Your task to perform on an android device: install app "Airtel Thanks" Image 0: 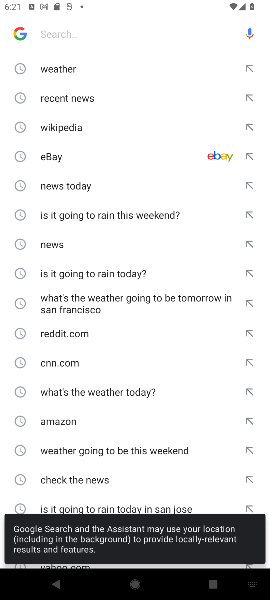
Step 0: press home button
Your task to perform on an android device: install app "Airtel Thanks" Image 1: 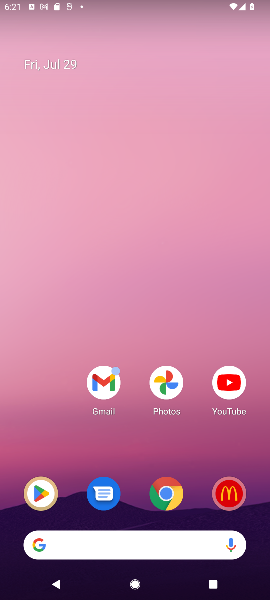
Step 1: click (38, 491)
Your task to perform on an android device: install app "Airtel Thanks" Image 2: 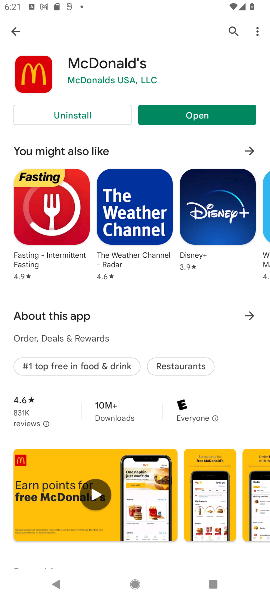
Step 2: click (230, 24)
Your task to perform on an android device: install app "Airtel Thanks" Image 3: 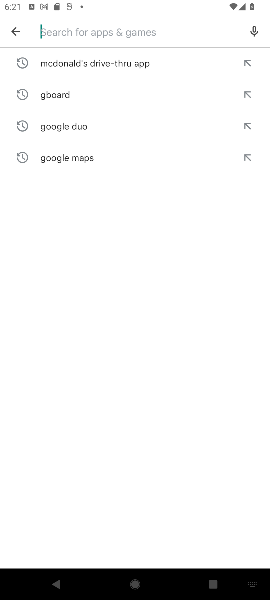
Step 3: type "Airtel Thanks"
Your task to perform on an android device: install app "Airtel Thanks" Image 4: 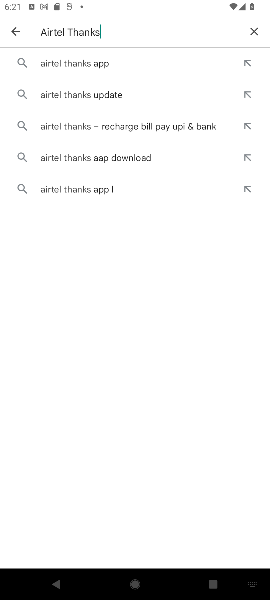
Step 4: click (104, 59)
Your task to perform on an android device: install app "Airtel Thanks" Image 5: 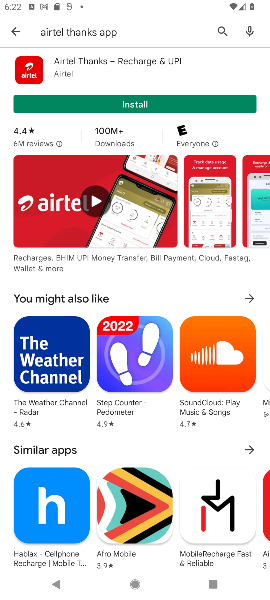
Step 5: click (142, 103)
Your task to perform on an android device: install app "Airtel Thanks" Image 6: 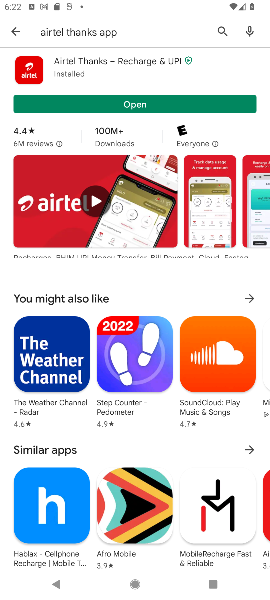
Step 6: click (121, 120)
Your task to perform on an android device: install app "Airtel Thanks" Image 7: 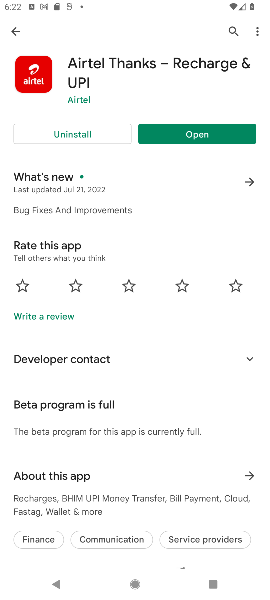
Step 7: task complete